Your task to perform on an android device: Search for Italian restaurants on Maps Image 0: 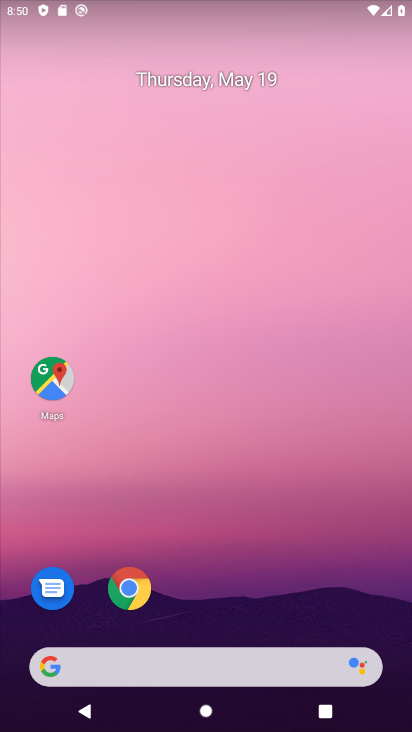
Step 0: click (55, 371)
Your task to perform on an android device: Search for Italian restaurants on Maps Image 1: 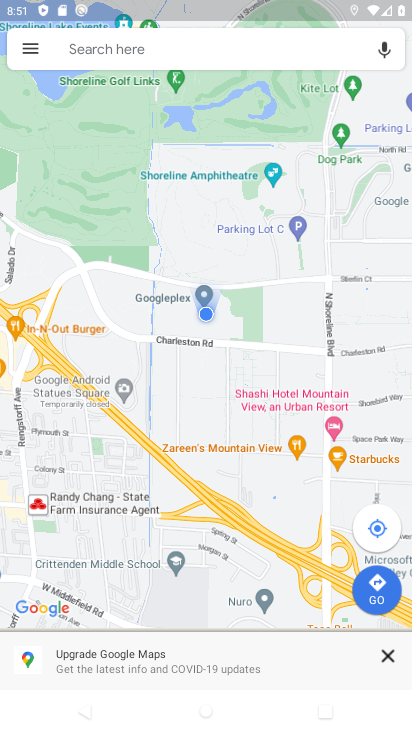
Step 1: click (181, 44)
Your task to perform on an android device: Search for Italian restaurants on Maps Image 2: 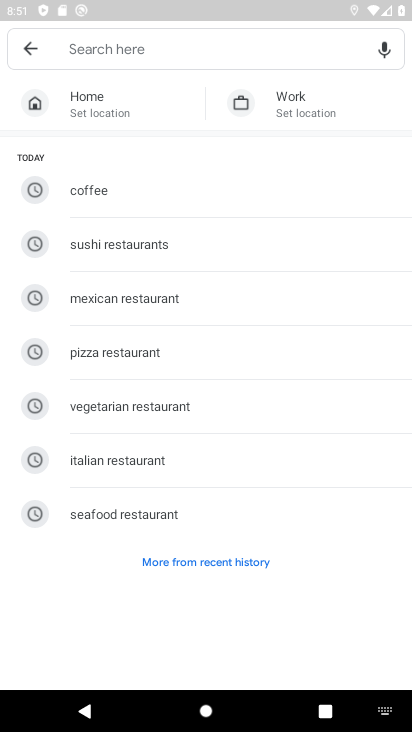
Step 2: click (125, 466)
Your task to perform on an android device: Search for Italian restaurants on Maps Image 3: 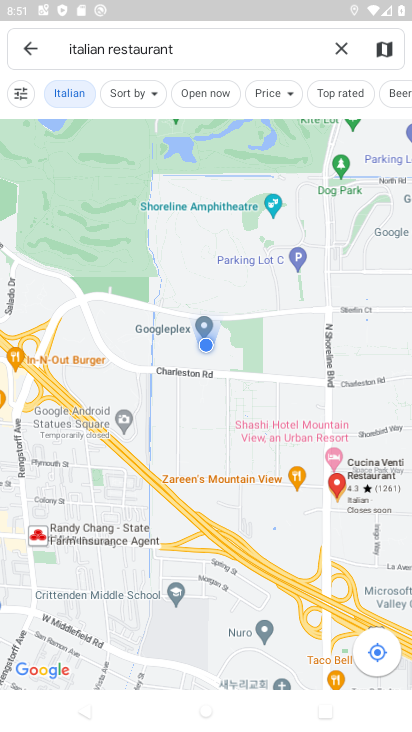
Step 3: task complete